Your task to perform on an android device: Go to eBay Image 0: 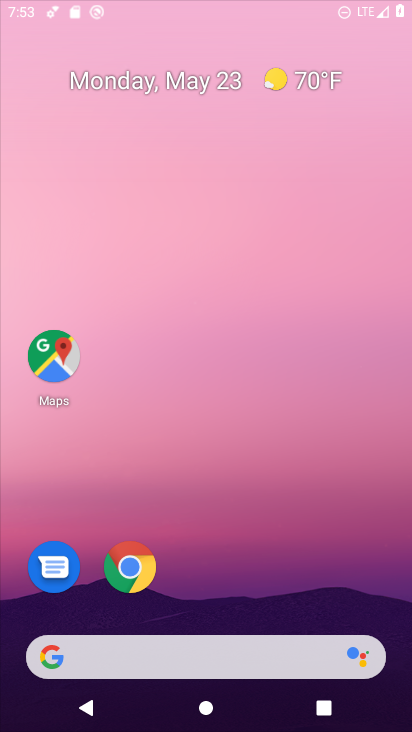
Step 0: click (331, 82)
Your task to perform on an android device: Go to eBay Image 1: 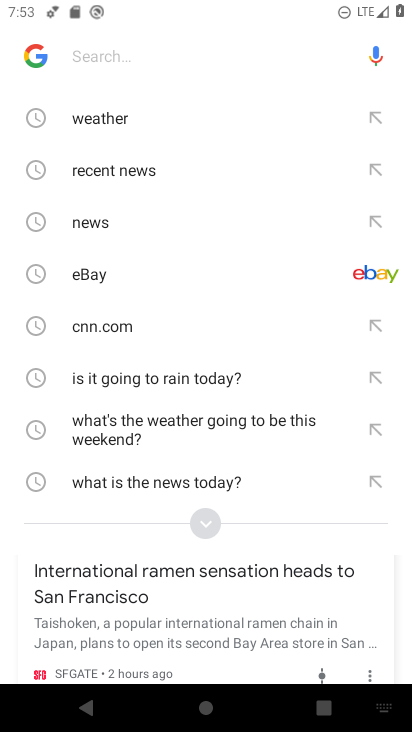
Step 1: press back button
Your task to perform on an android device: Go to eBay Image 2: 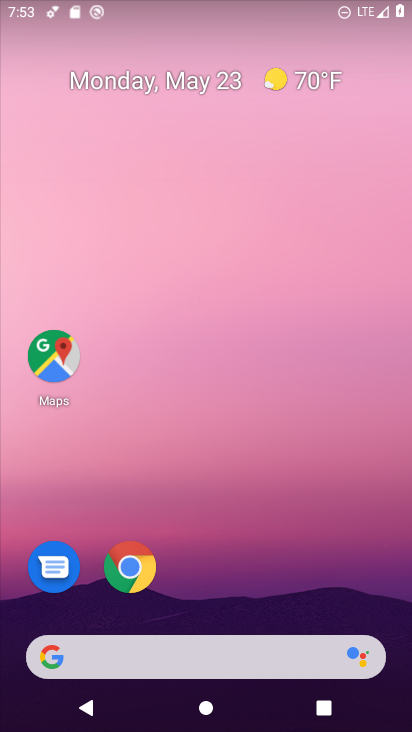
Step 2: click (131, 568)
Your task to perform on an android device: Go to eBay Image 3: 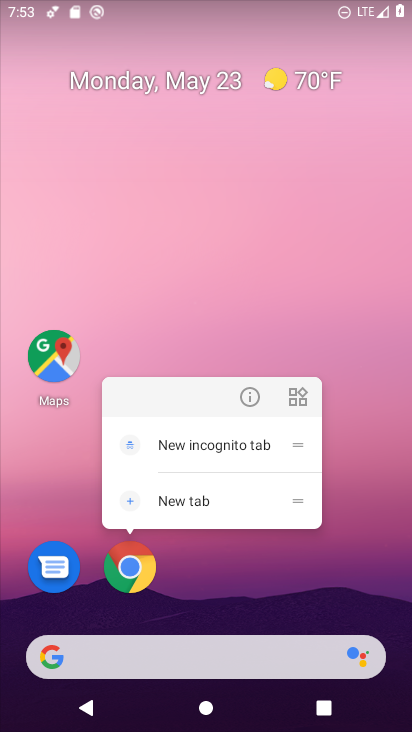
Step 3: click (254, 393)
Your task to perform on an android device: Go to eBay Image 4: 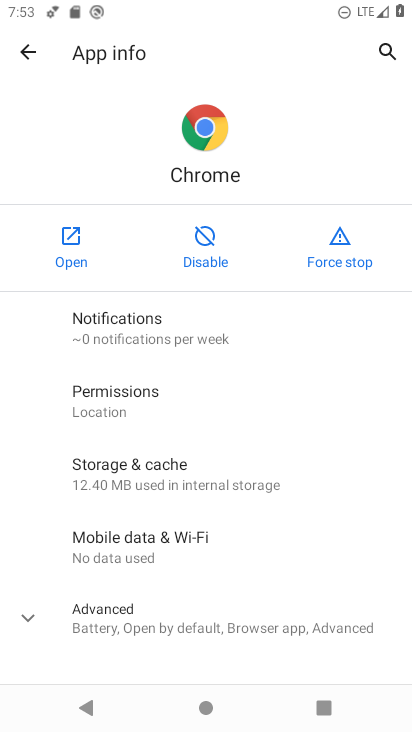
Step 4: click (56, 234)
Your task to perform on an android device: Go to eBay Image 5: 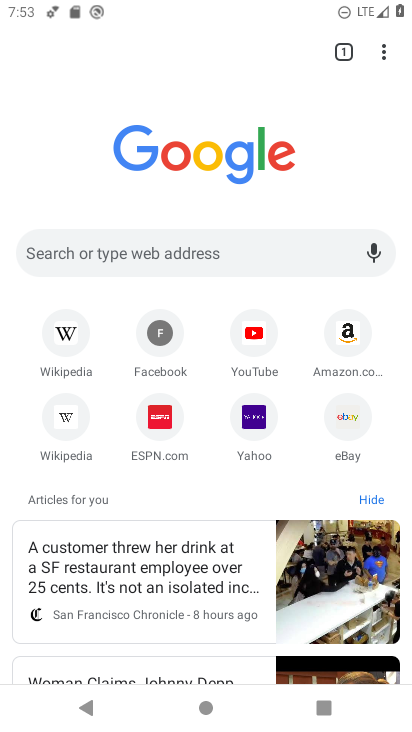
Step 5: click (347, 413)
Your task to perform on an android device: Go to eBay Image 6: 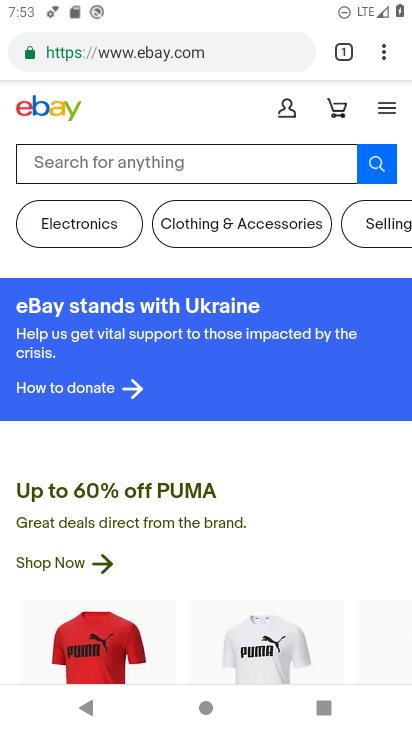
Step 6: task complete